Your task to perform on an android device: move an email to a new category in the gmail app Image 0: 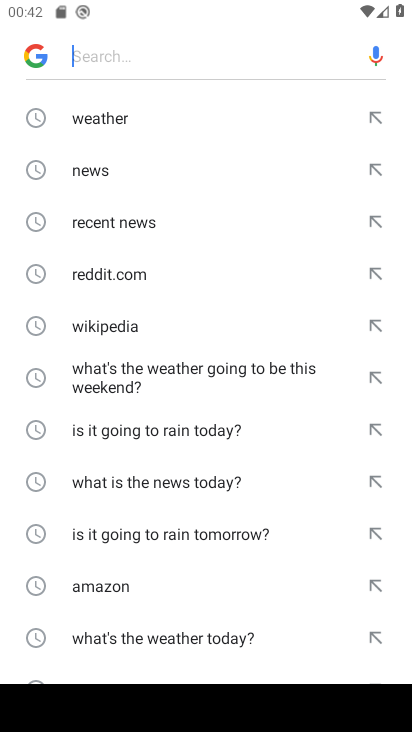
Step 0: press home button
Your task to perform on an android device: move an email to a new category in the gmail app Image 1: 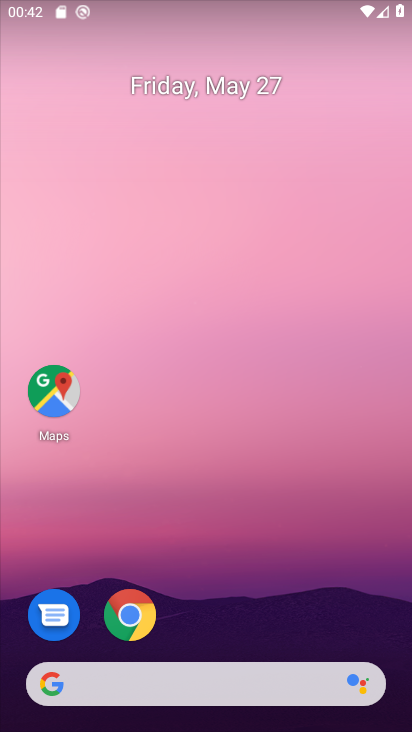
Step 1: drag from (358, 617) to (365, 242)
Your task to perform on an android device: move an email to a new category in the gmail app Image 2: 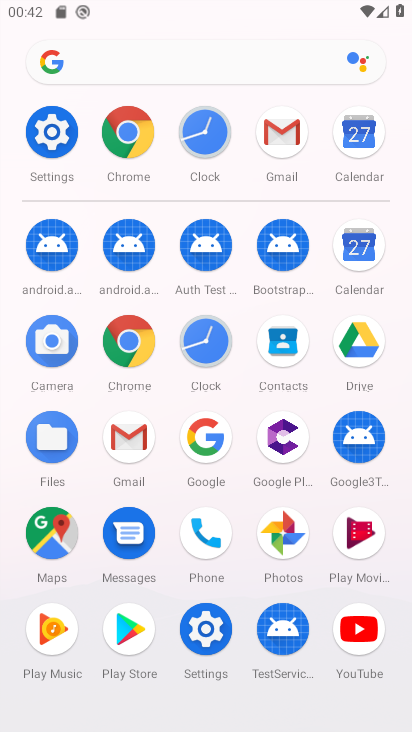
Step 2: click (126, 440)
Your task to perform on an android device: move an email to a new category in the gmail app Image 3: 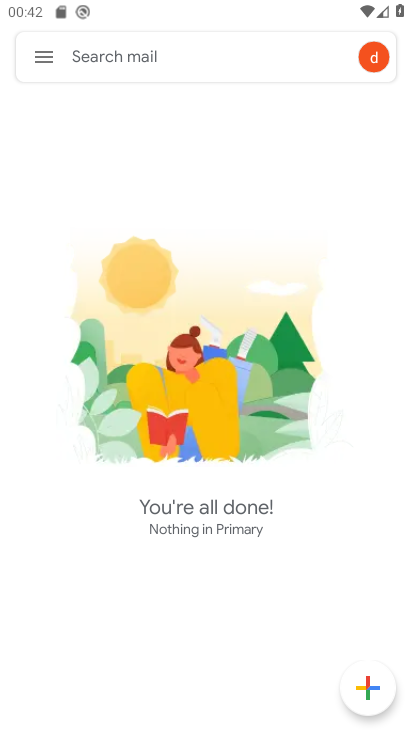
Step 3: task complete